Your task to perform on an android device: Open ESPN.com Image 0: 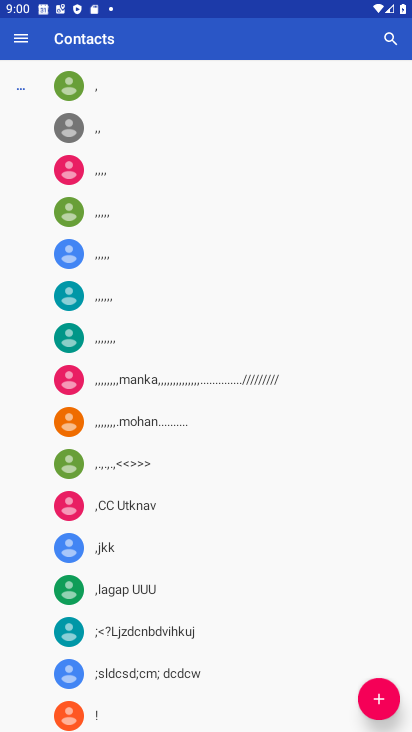
Step 0: press home button
Your task to perform on an android device: Open ESPN.com Image 1: 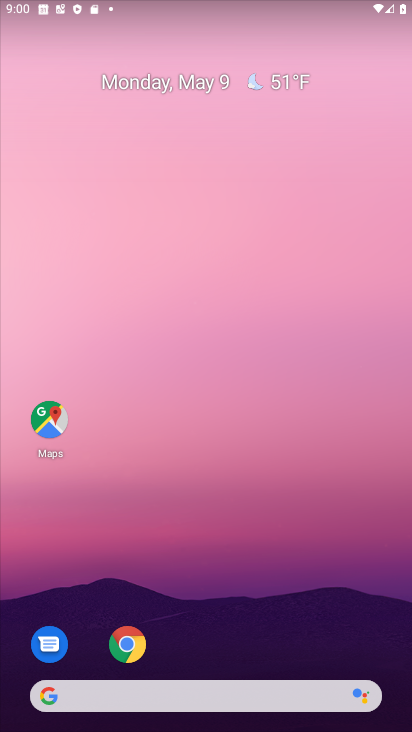
Step 1: click (117, 646)
Your task to perform on an android device: Open ESPN.com Image 2: 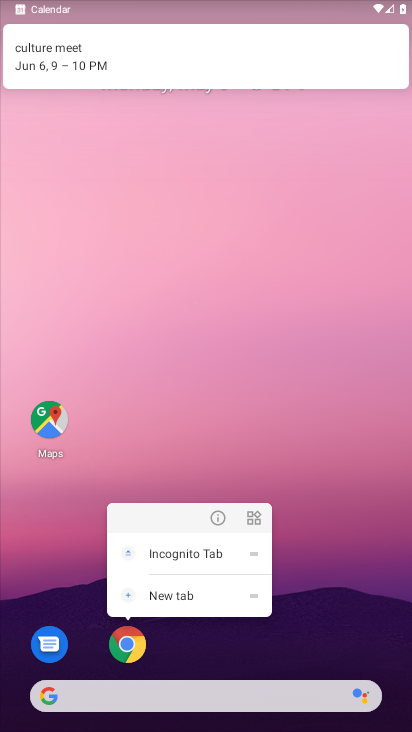
Step 2: click (122, 642)
Your task to perform on an android device: Open ESPN.com Image 3: 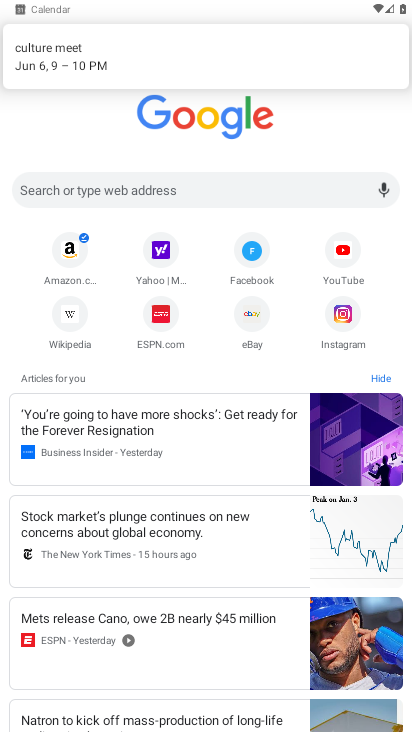
Step 3: click (158, 323)
Your task to perform on an android device: Open ESPN.com Image 4: 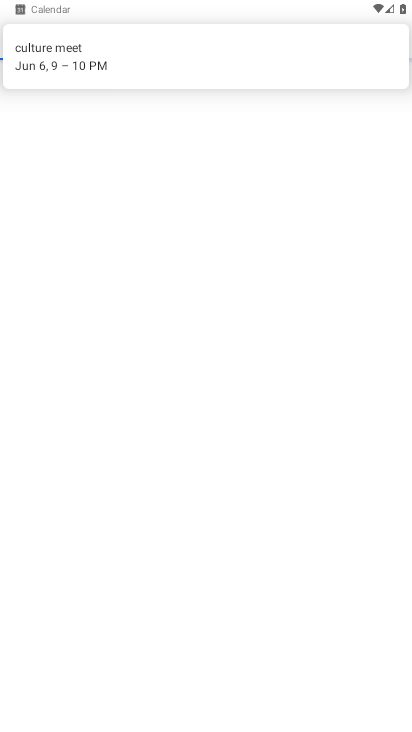
Step 4: task complete